Your task to perform on an android device: toggle priority inbox in the gmail app Image 0: 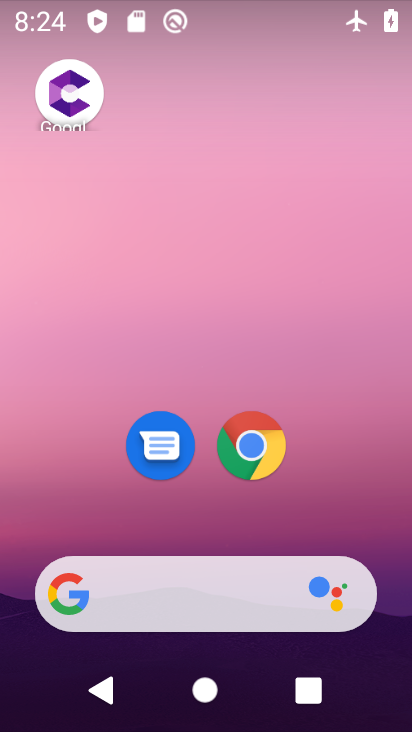
Step 0: drag from (291, 504) to (347, 98)
Your task to perform on an android device: toggle priority inbox in the gmail app Image 1: 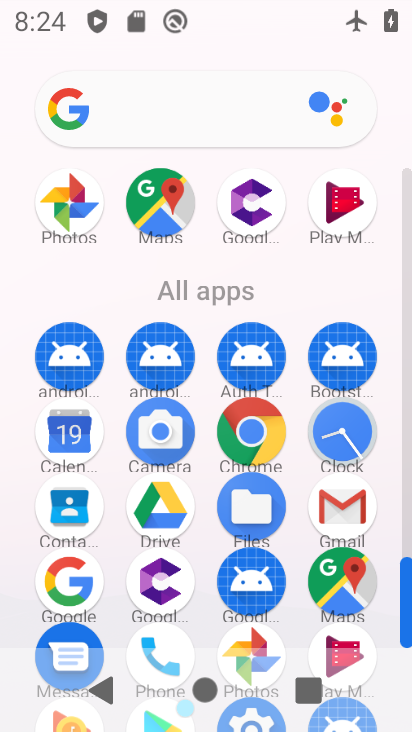
Step 1: click (335, 506)
Your task to perform on an android device: toggle priority inbox in the gmail app Image 2: 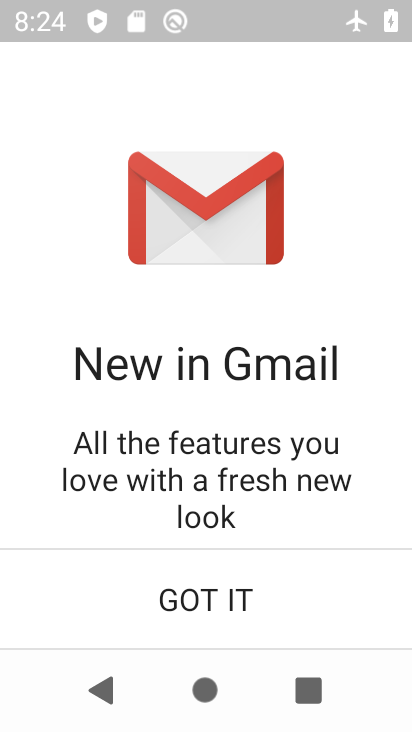
Step 2: click (166, 596)
Your task to perform on an android device: toggle priority inbox in the gmail app Image 3: 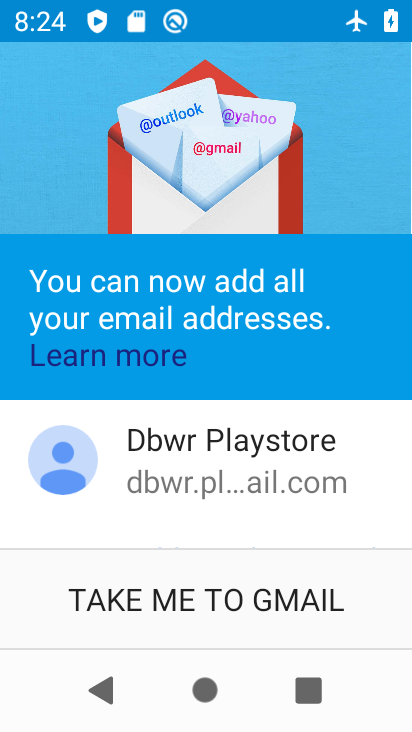
Step 3: click (210, 594)
Your task to perform on an android device: toggle priority inbox in the gmail app Image 4: 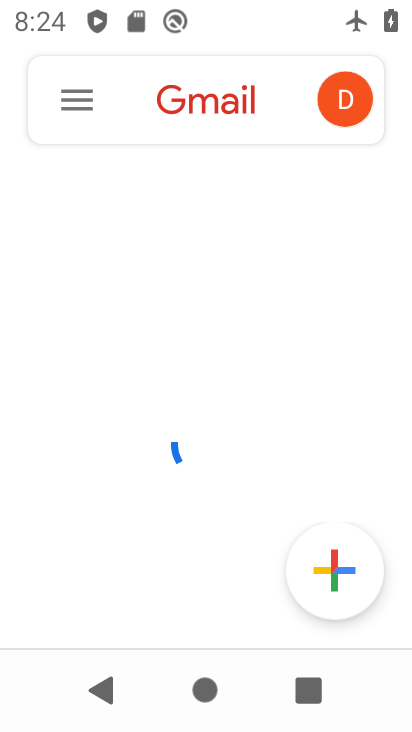
Step 4: click (69, 94)
Your task to perform on an android device: toggle priority inbox in the gmail app Image 5: 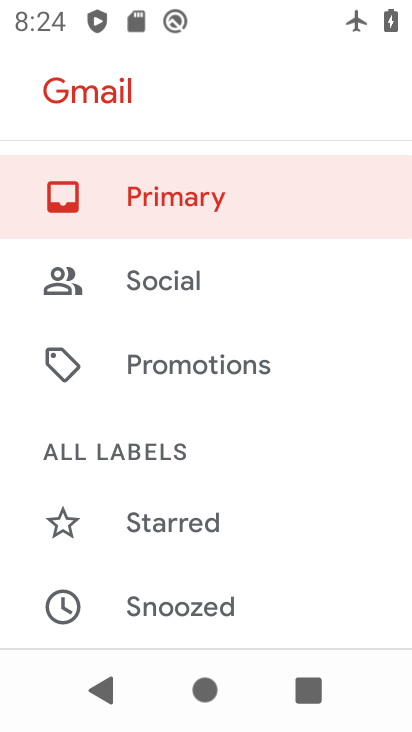
Step 5: drag from (193, 595) to (315, 145)
Your task to perform on an android device: toggle priority inbox in the gmail app Image 6: 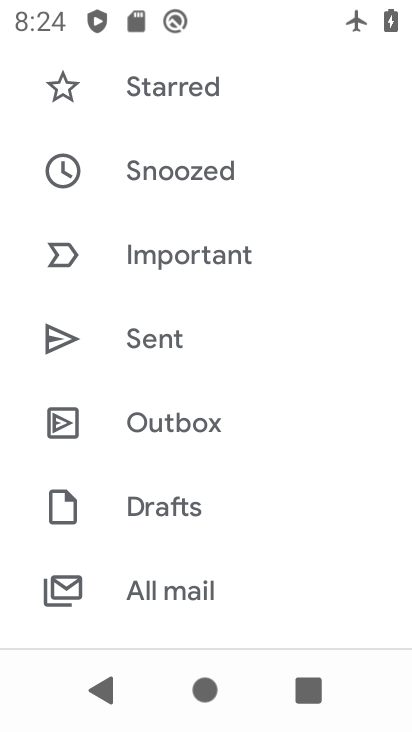
Step 6: drag from (209, 600) to (279, 114)
Your task to perform on an android device: toggle priority inbox in the gmail app Image 7: 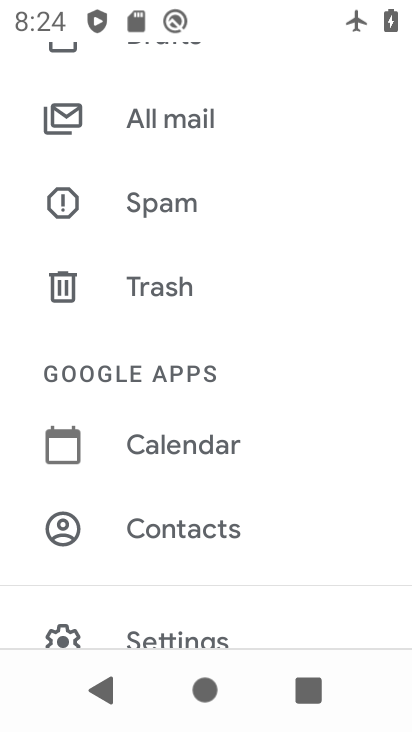
Step 7: click (165, 626)
Your task to perform on an android device: toggle priority inbox in the gmail app Image 8: 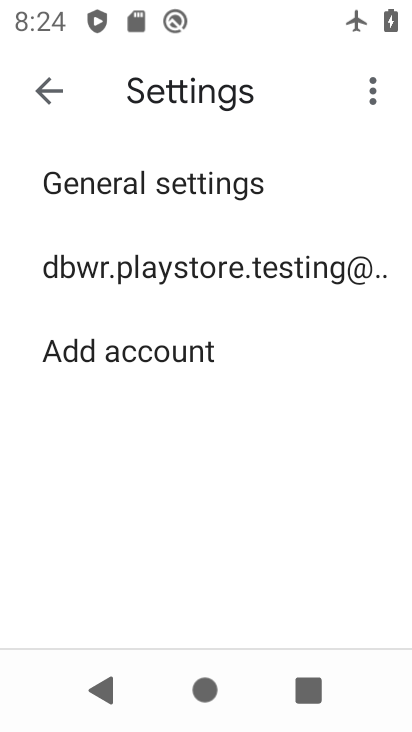
Step 8: click (238, 260)
Your task to perform on an android device: toggle priority inbox in the gmail app Image 9: 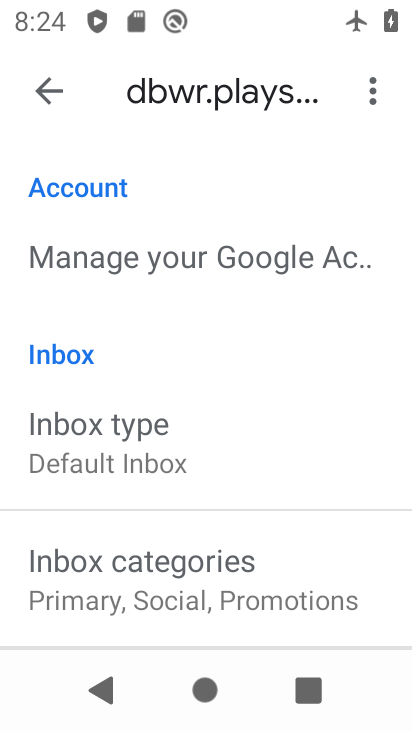
Step 9: click (146, 449)
Your task to perform on an android device: toggle priority inbox in the gmail app Image 10: 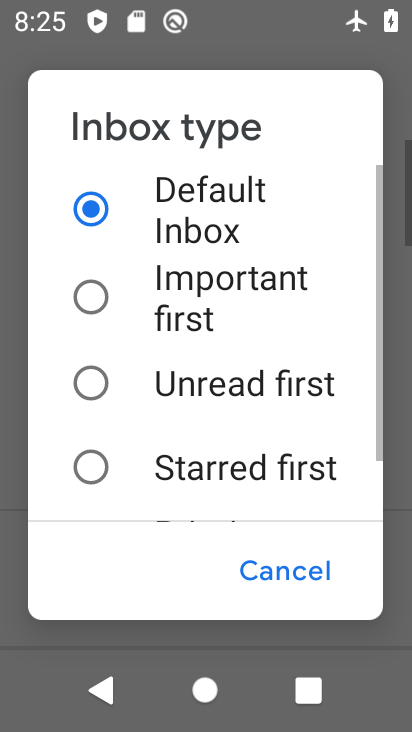
Step 10: drag from (128, 478) to (250, 35)
Your task to perform on an android device: toggle priority inbox in the gmail app Image 11: 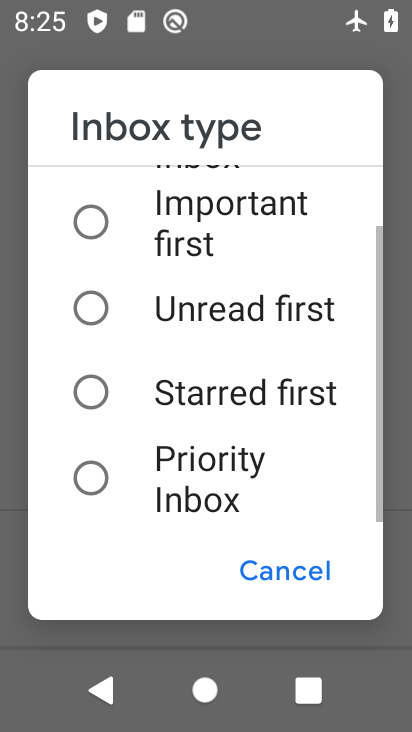
Step 11: click (92, 477)
Your task to perform on an android device: toggle priority inbox in the gmail app Image 12: 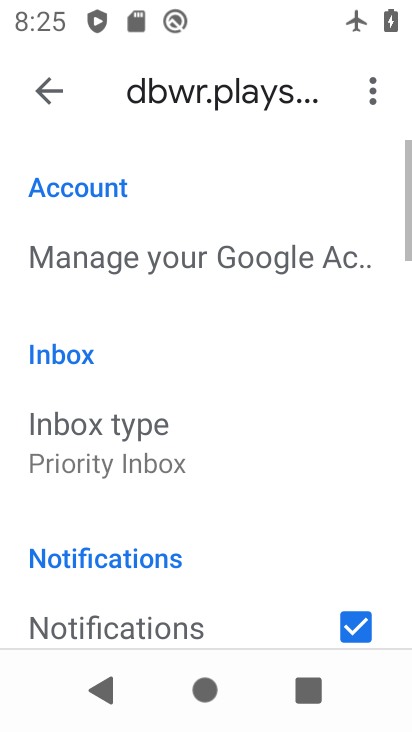
Step 12: task complete